Your task to perform on an android device: Open notification settings Image 0: 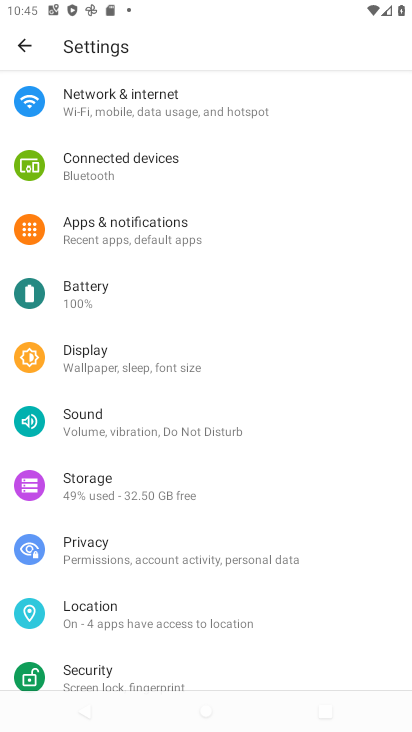
Step 0: click (97, 224)
Your task to perform on an android device: Open notification settings Image 1: 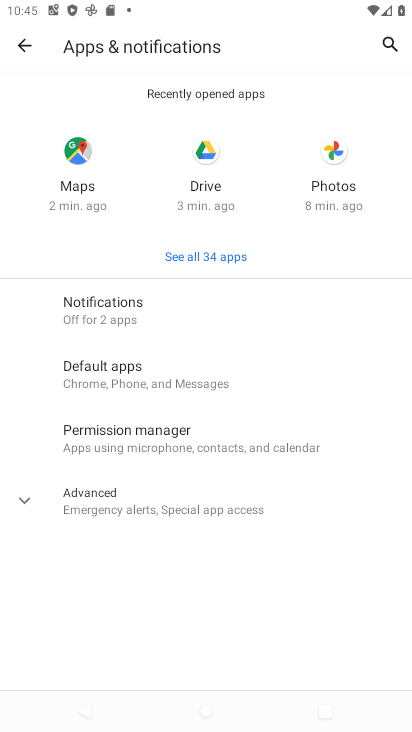
Step 1: task complete